Your task to perform on an android device: turn off location Image 0: 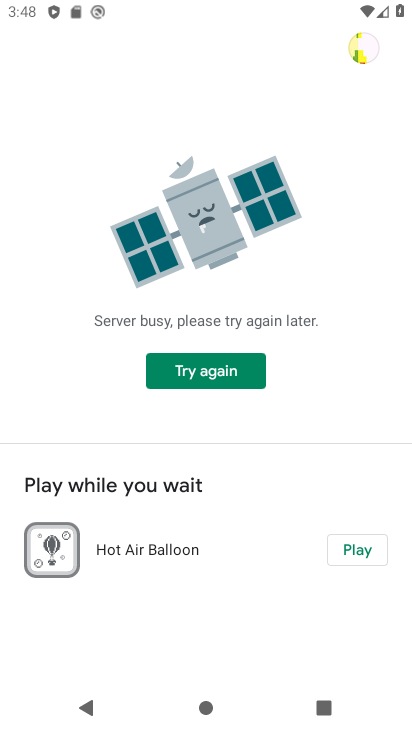
Step 0: press home button
Your task to perform on an android device: turn off location Image 1: 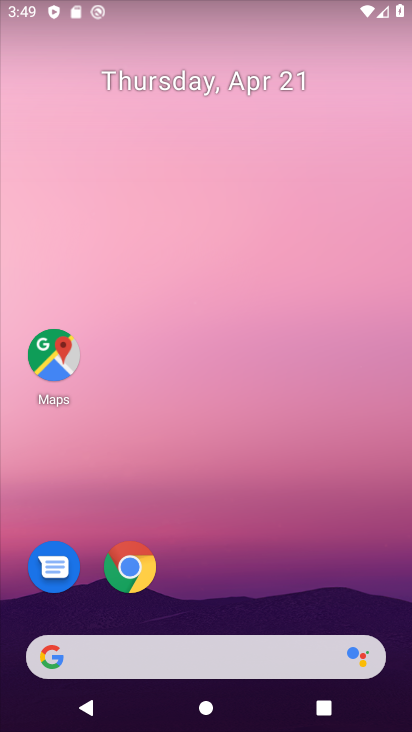
Step 1: drag from (74, 198) to (48, 66)
Your task to perform on an android device: turn off location Image 2: 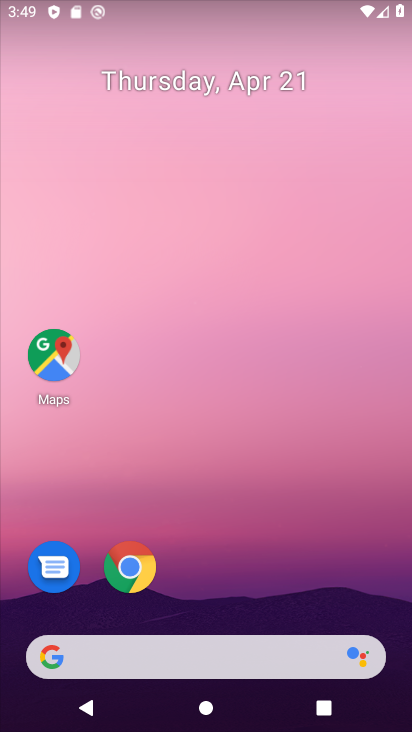
Step 2: drag from (239, 265) to (181, 9)
Your task to perform on an android device: turn off location Image 3: 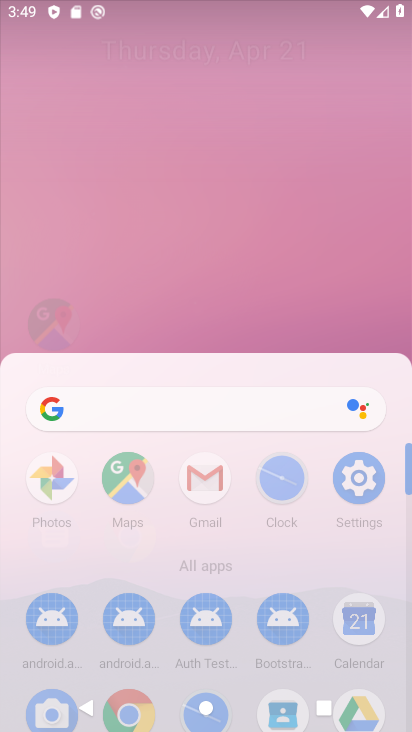
Step 3: drag from (219, 273) to (145, 69)
Your task to perform on an android device: turn off location Image 4: 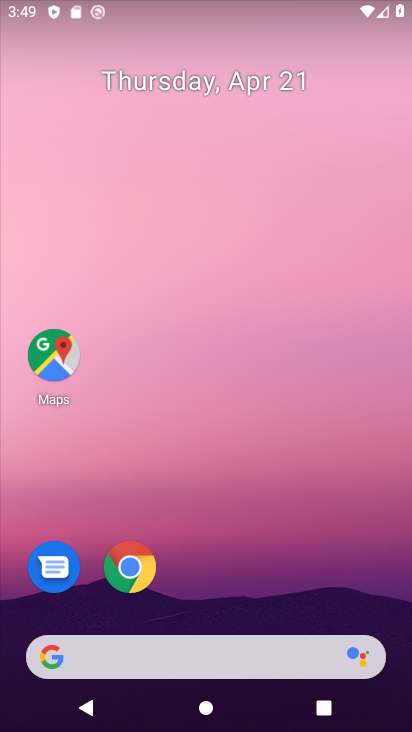
Step 4: drag from (177, 320) to (134, 12)
Your task to perform on an android device: turn off location Image 5: 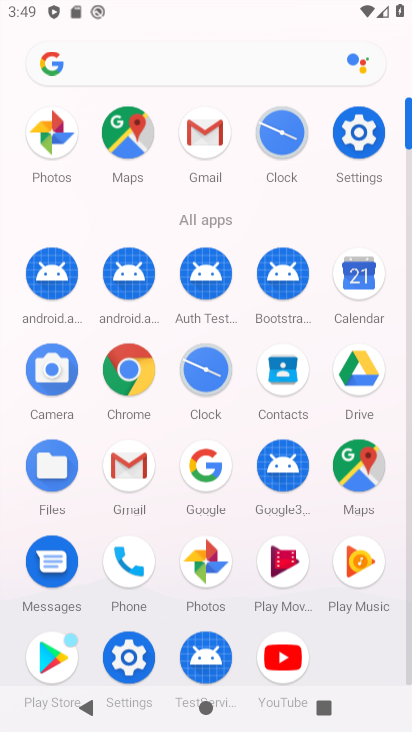
Step 5: click (220, 198)
Your task to perform on an android device: turn off location Image 6: 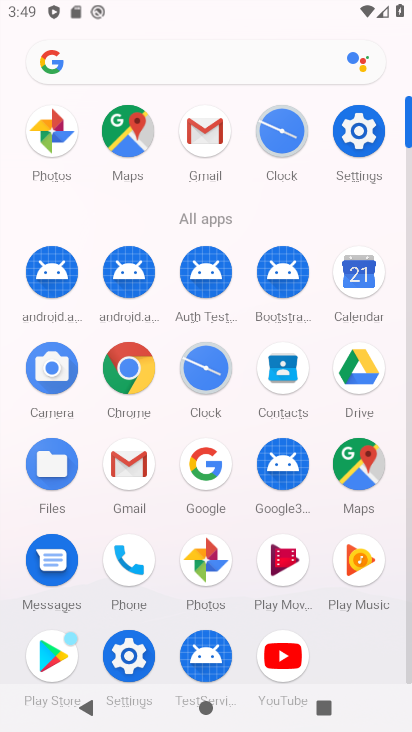
Step 6: click (359, 466)
Your task to perform on an android device: turn off location Image 7: 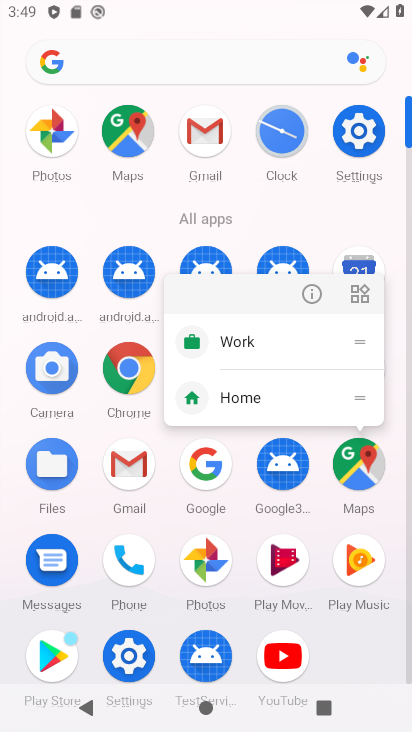
Step 7: click (359, 468)
Your task to perform on an android device: turn off location Image 8: 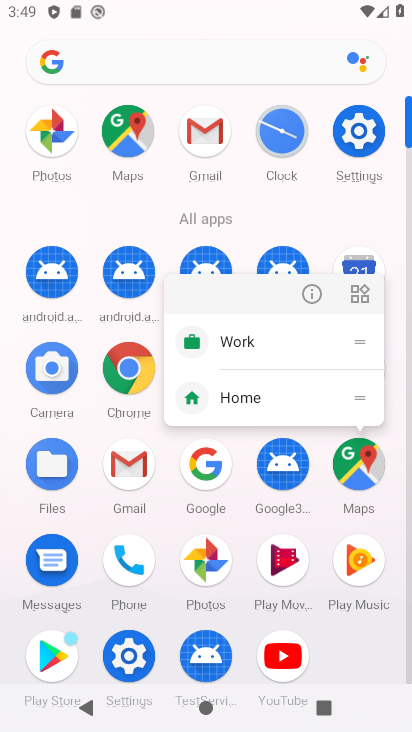
Step 8: click (359, 468)
Your task to perform on an android device: turn off location Image 9: 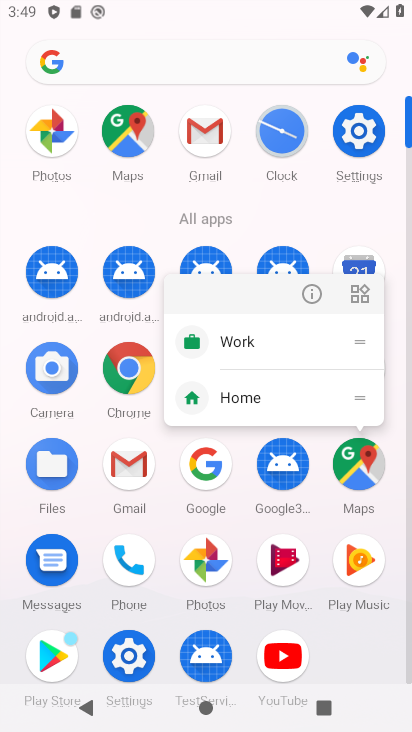
Step 9: click (359, 468)
Your task to perform on an android device: turn off location Image 10: 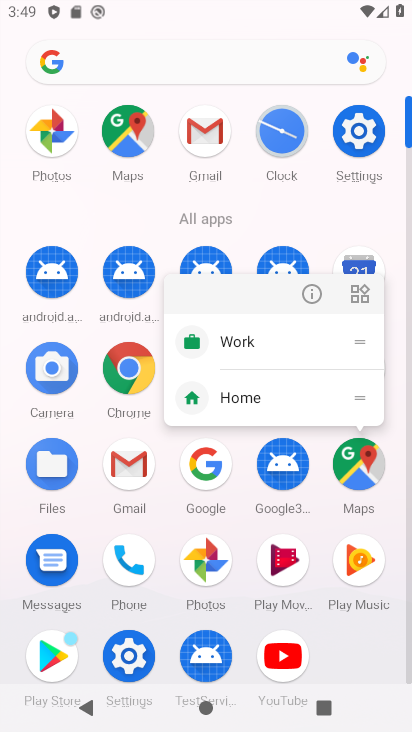
Step 10: click (359, 468)
Your task to perform on an android device: turn off location Image 11: 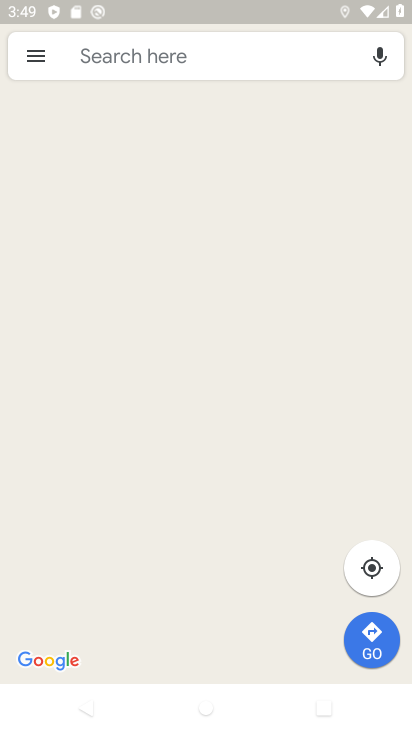
Step 11: press home button
Your task to perform on an android device: turn off location Image 12: 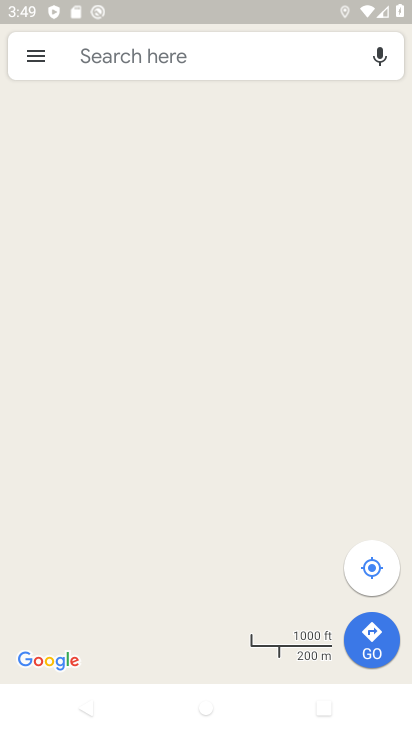
Step 12: press home button
Your task to perform on an android device: turn off location Image 13: 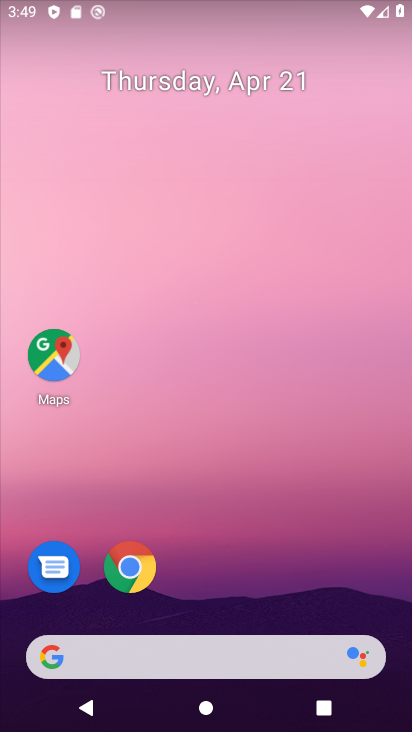
Step 13: drag from (231, 600) to (62, 21)
Your task to perform on an android device: turn off location Image 14: 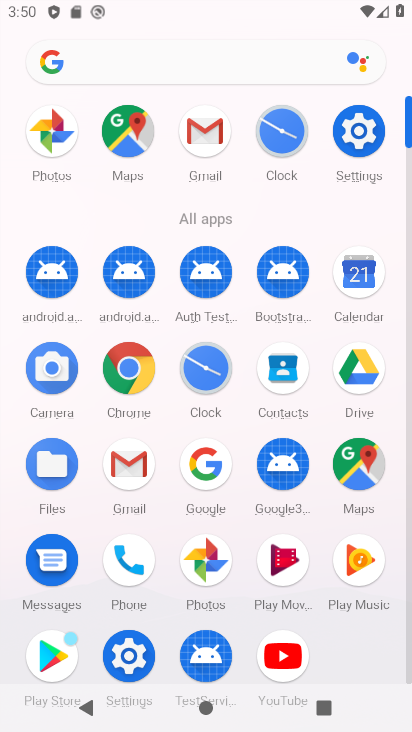
Step 14: click (125, 666)
Your task to perform on an android device: turn off location Image 15: 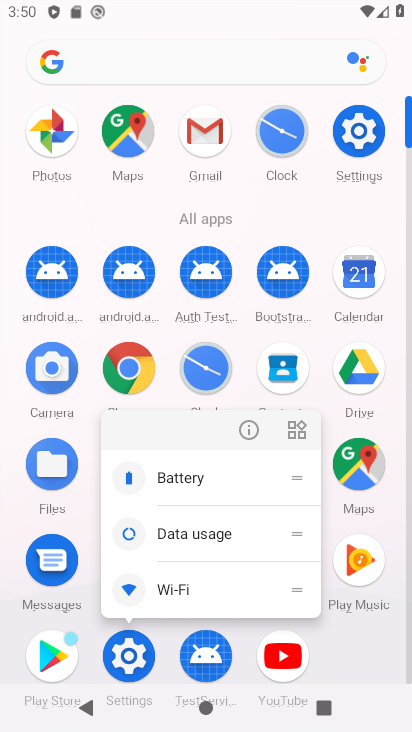
Step 15: click (125, 666)
Your task to perform on an android device: turn off location Image 16: 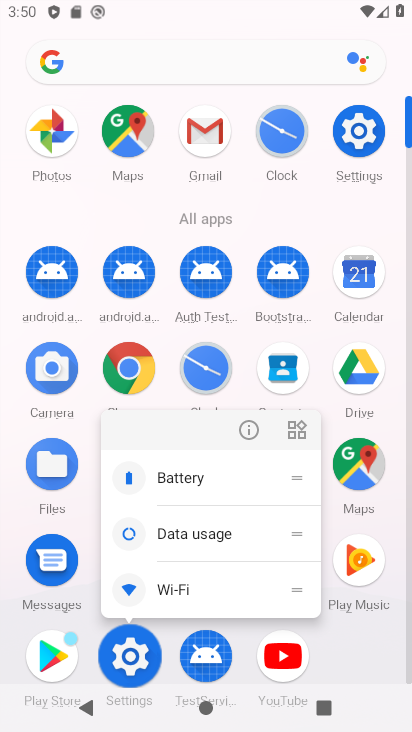
Step 16: click (129, 664)
Your task to perform on an android device: turn off location Image 17: 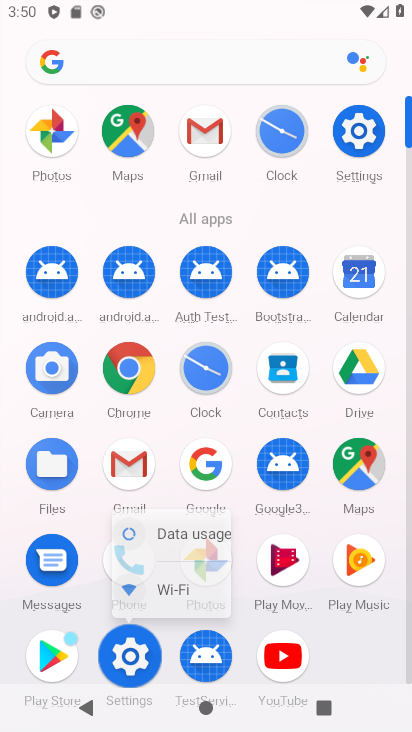
Step 17: click (132, 660)
Your task to perform on an android device: turn off location Image 18: 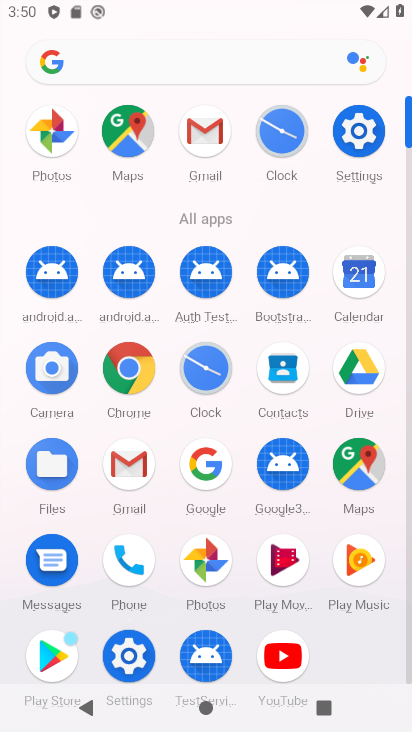
Step 18: click (132, 659)
Your task to perform on an android device: turn off location Image 19: 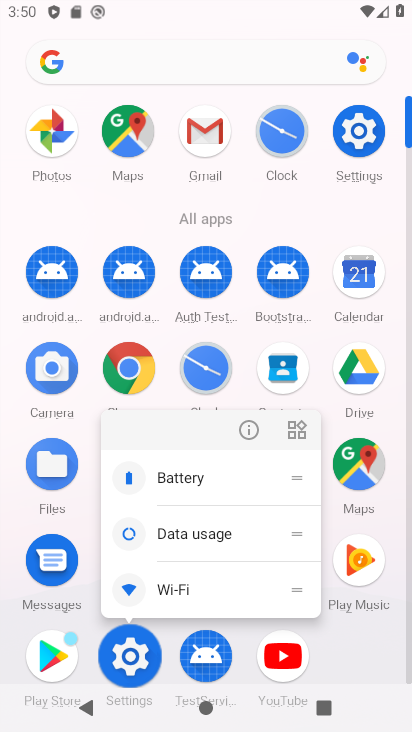
Step 19: click (136, 657)
Your task to perform on an android device: turn off location Image 20: 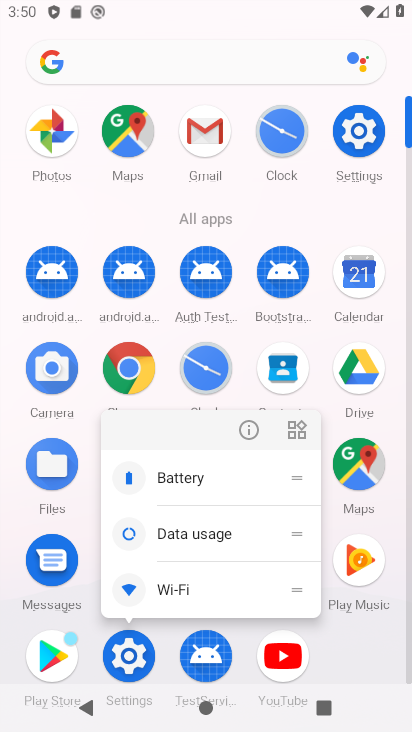
Step 20: click (133, 654)
Your task to perform on an android device: turn off location Image 21: 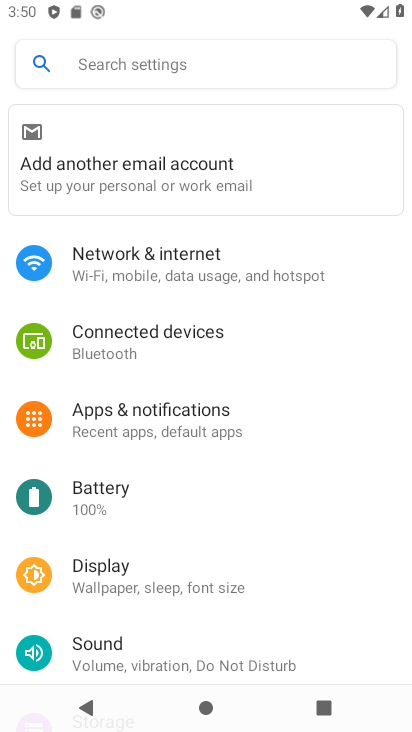
Step 21: drag from (98, 339) to (58, 171)
Your task to perform on an android device: turn off location Image 22: 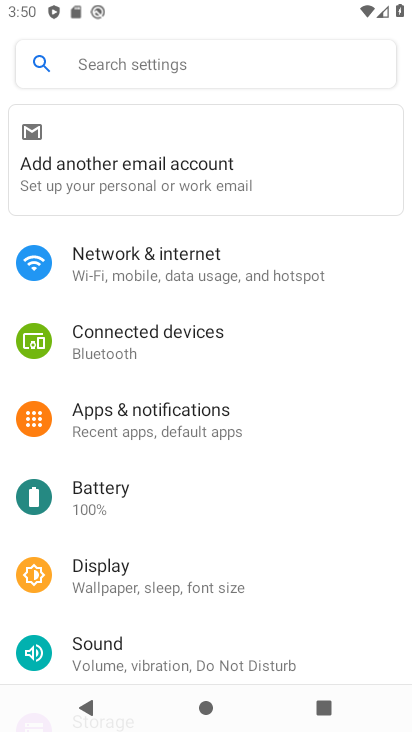
Step 22: drag from (177, 353) to (190, 148)
Your task to perform on an android device: turn off location Image 23: 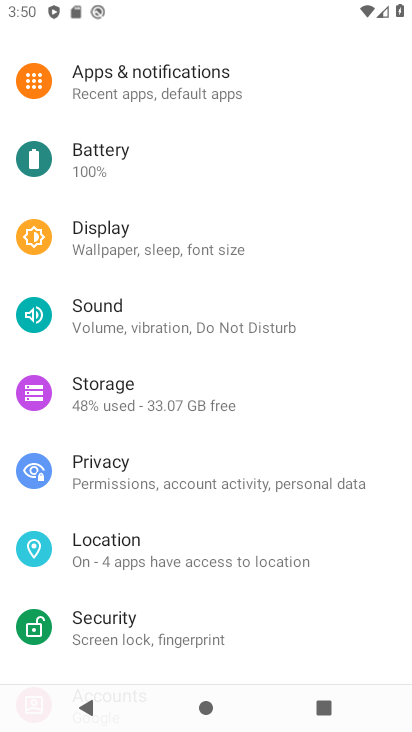
Step 23: click (109, 544)
Your task to perform on an android device: turn off location Image 24: 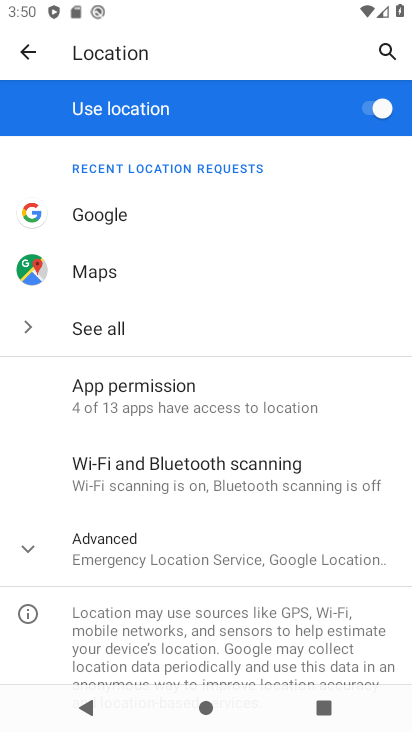
Step 24: click (382, 109)
Your task to perform on an android device: turn off location Image 25: 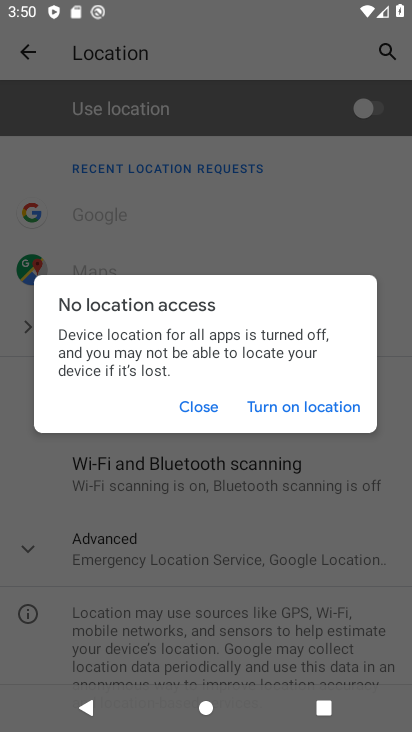
Step 25: click (276, 399)
Your task to perform on an android device: turn off location Image 26: 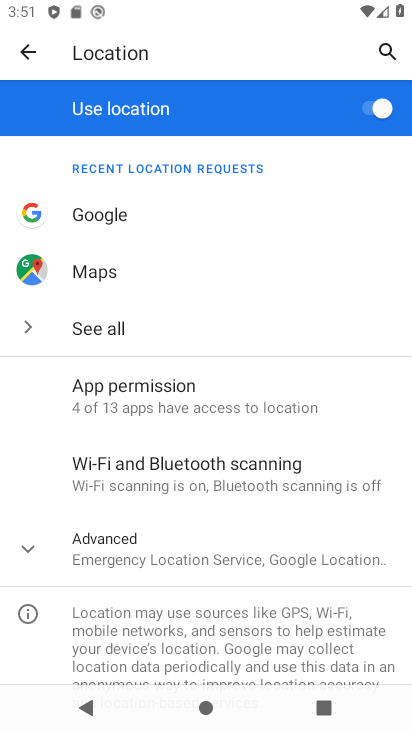
Step 26: click (378, 102)
Your task to perform on an android device: turn off location Image 27: 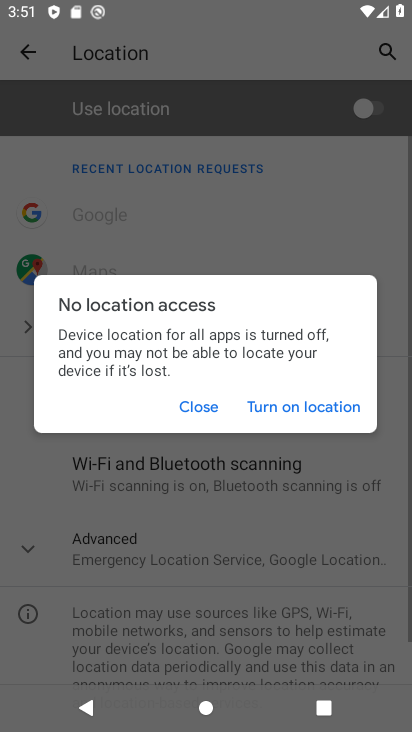
Step 27: task complete